Your task to perform on an android device: open a bookmark in the chrome app Image 0: 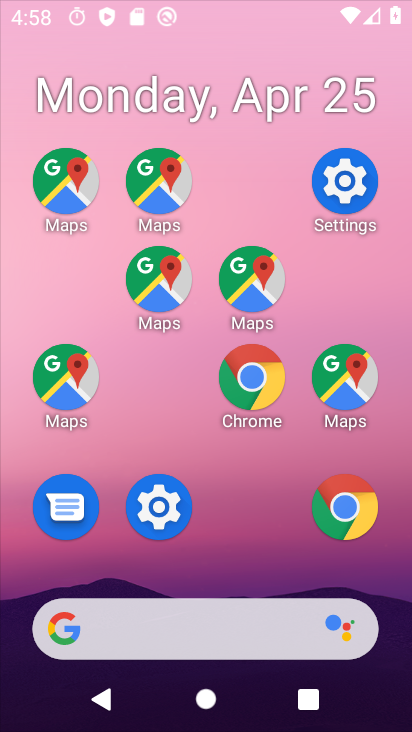
Step 0: click (39, 19)
Your task to perform on an android device: open a bookmark in the chrome app Image 1: 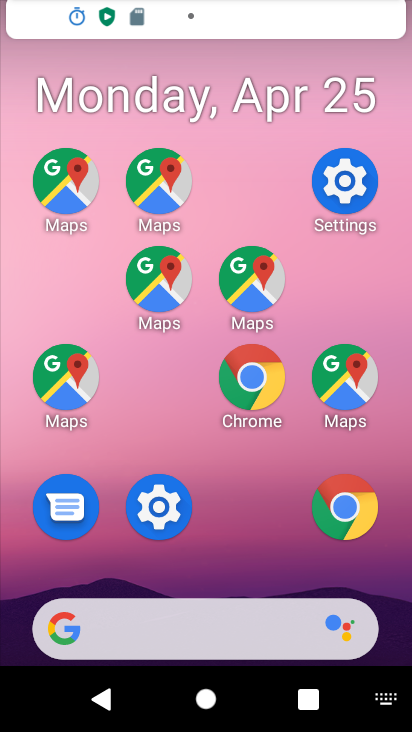
Step 1: drag from (245, 673) to (146, 149)
Your task to perform on an android device: open a bookmark in the chrome app Image 2: 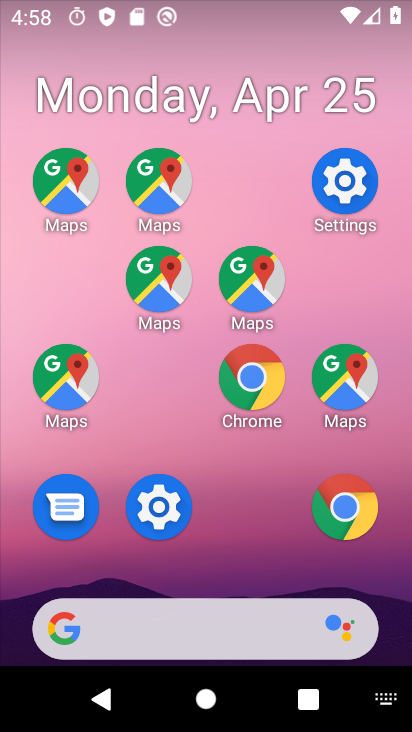
Step 2: drag from (251, 596) to (235, 180)
Your task to perform on an android device: open a bookmark in the chrome app Image 3: 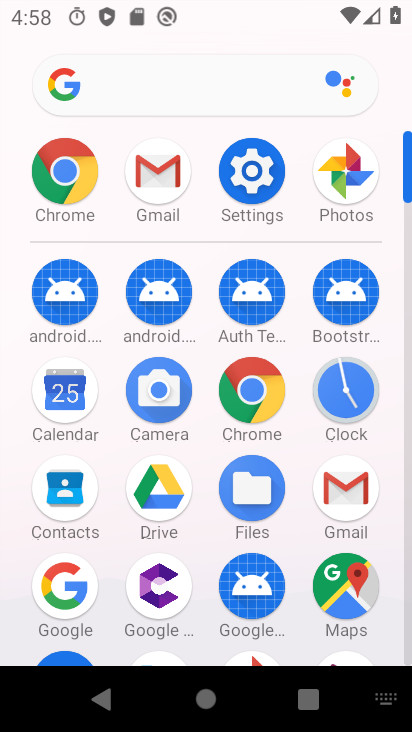
Step 3: click (56, 174)
Your task to perform on an android device: open a bookmark in the chrome app Image 4: 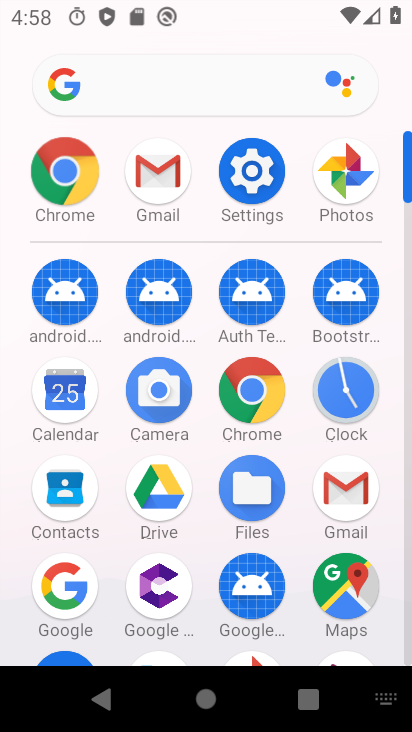
Step 4: click (56, 174)
Your task to perform on an android device: open a bookmark in the chrome app Image 5: 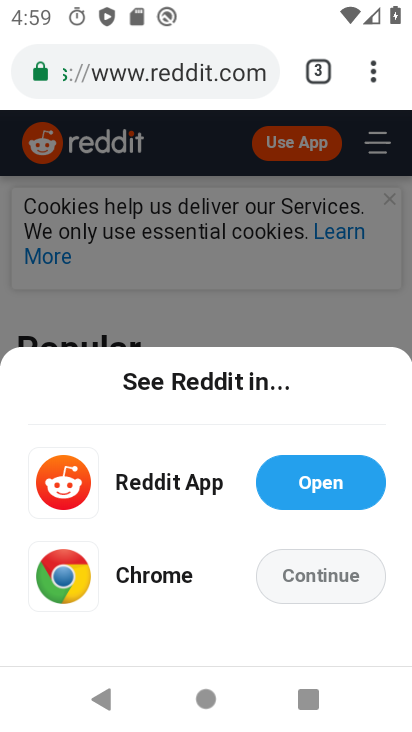
Step 5: click (376, 68)
Your task to perform on an android device: open a bookmark in the chrome app Image 6: 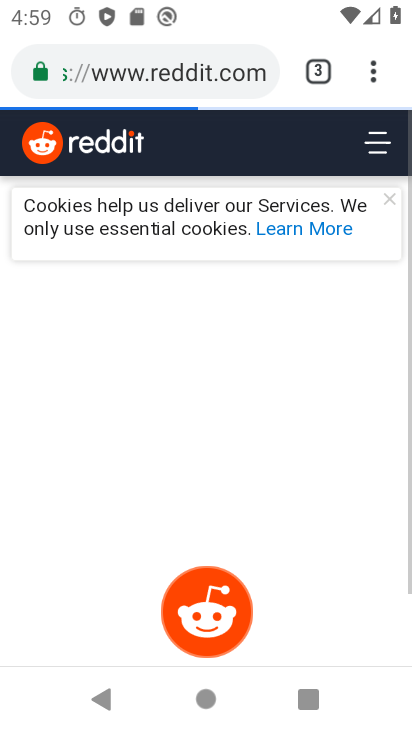
Step 6: click (376, 61)
Your task to perform on an android device: open a bookmark in the chrome app Image 7: 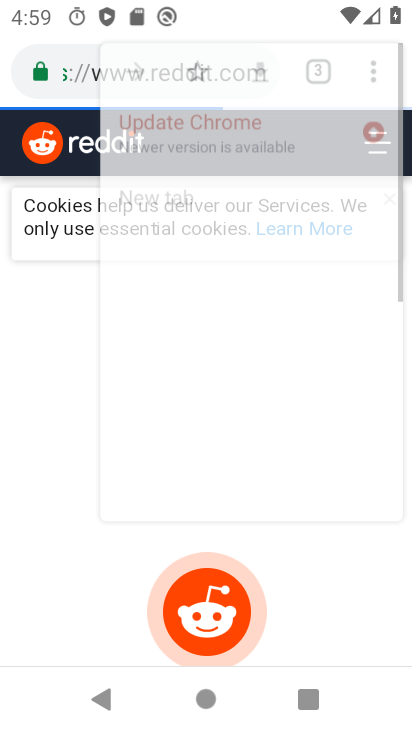
Step 7: click (368, 69)
Your task to perform on an android device: open a bookmark in the chrome app Image 8: 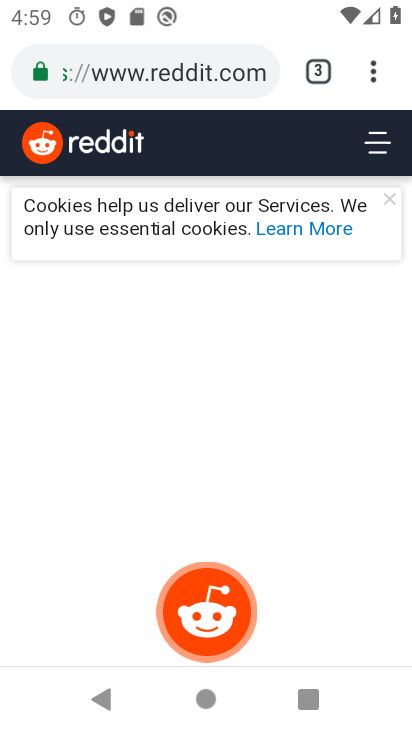
Step 8: drag from (368, 69) to (117, 518)
Your task to perform on an android device: open a bookmark in the chrome app Image 9: 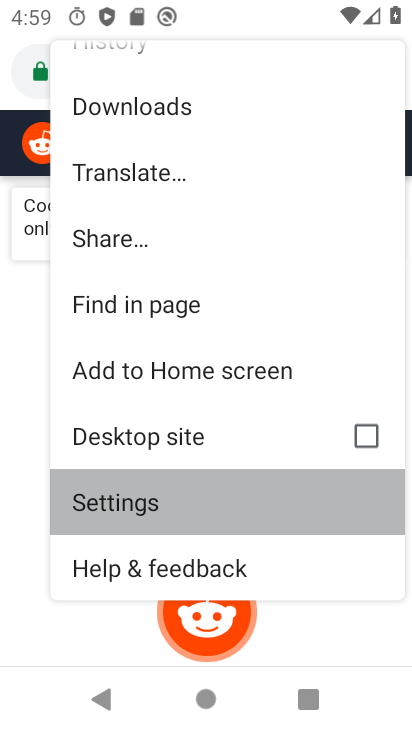
Step 9: click (122, 513)
Your task to perform on an android device: open a bookmark in the chrome app Image 10: 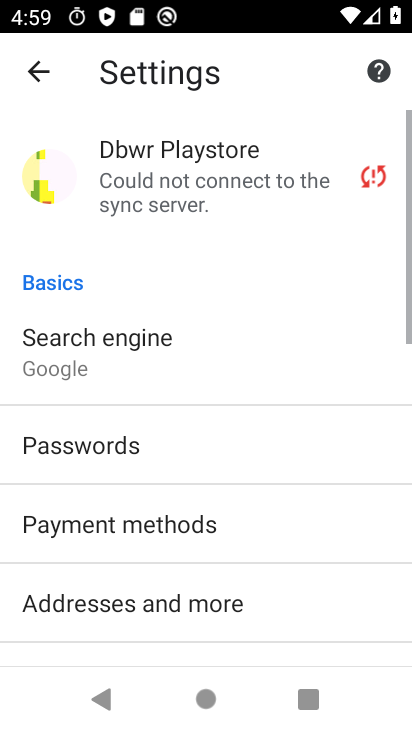
Step 10: drag from (177, 503) to (146, 164)
Your task to perform on an android device: open a bookmark in the chrome app Image 11: 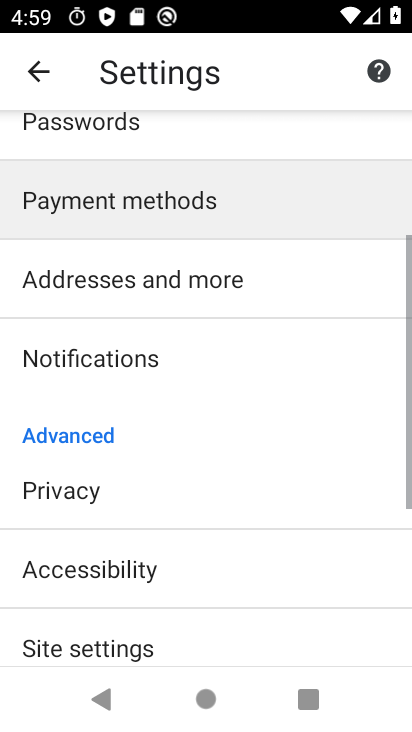
Step 11: drag from (213, 523) to (185, 77)
Your task to perform on an android device: open a bookmark in the chrome app Image 12: 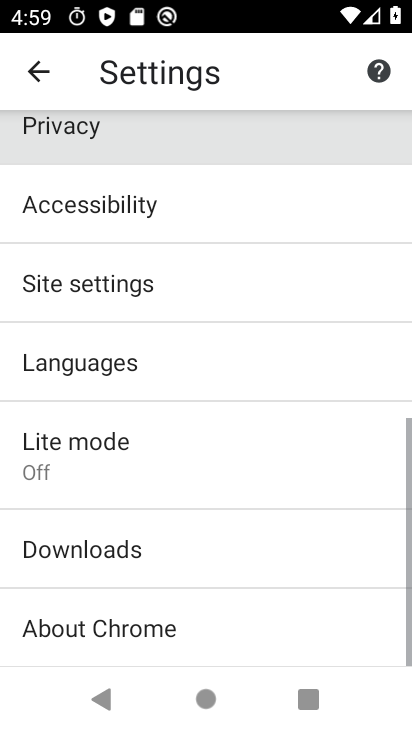
Step 12: drag from (239, 322) to (190, 122)
Your task to perform on an android device: open a bookmark in the chrome app Image 13: 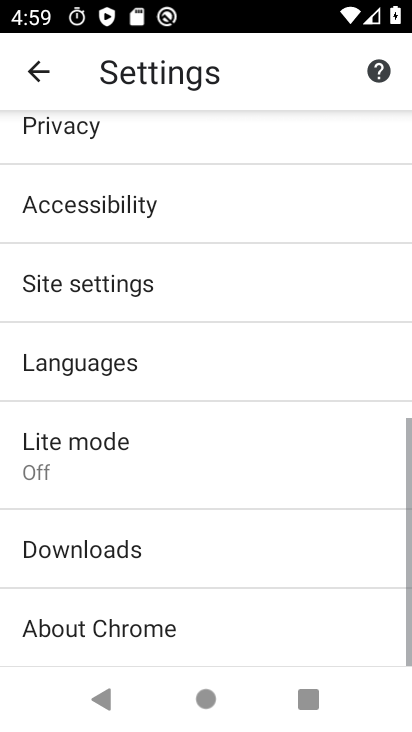
Step 13: drag from (153, 508) to (102, 178)
Your task to perform on an android device: open a bookmark in the chrome app Image 14: 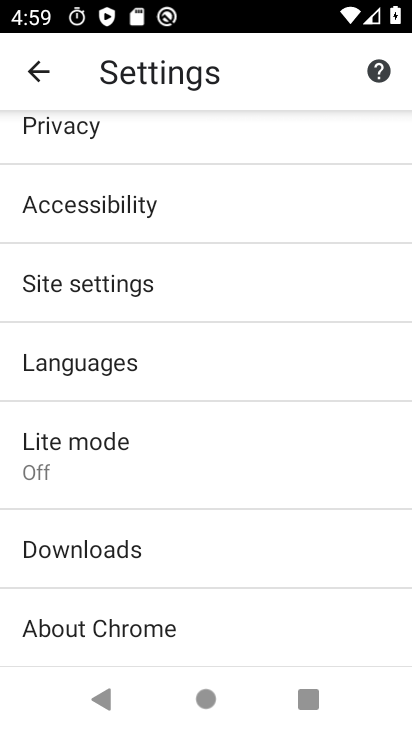
Step 14: drag from (125, 379) to (48, 589)
Your task to perform on an android device: open a bookmark in the chrome app Image 15: 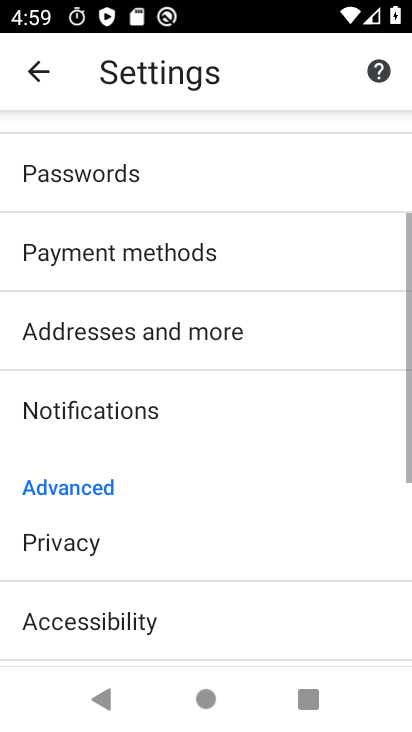
Step 15: drag from (21, 579) to (142, 526)
Your task to perform on an android device: open a bookmark in the chrome app Image 16: 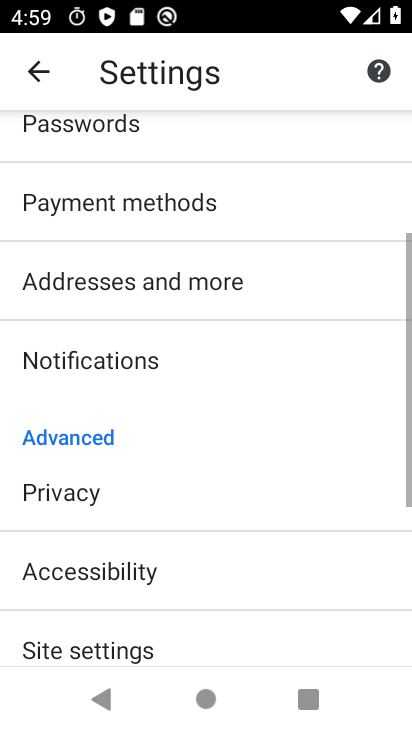
Step 16: drag from (90, 187) to (177, 527)
Your task to perform on an android device: open a bookmark in the chrome app Image 17: 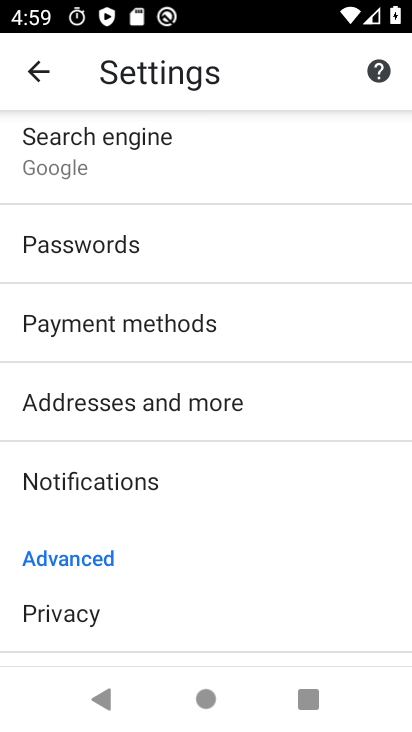
Step 17: drag from (116, 309) to (180, 568)
Your task to perform on an android device: open a bookmark in the chrome app Image 18: 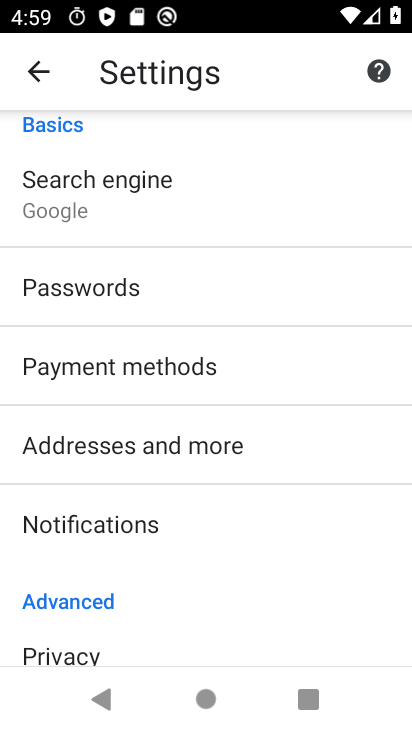
Step 18: click (30, 64)
Your task to perform on an android device: open a bookmark in the chrome app Image 19: 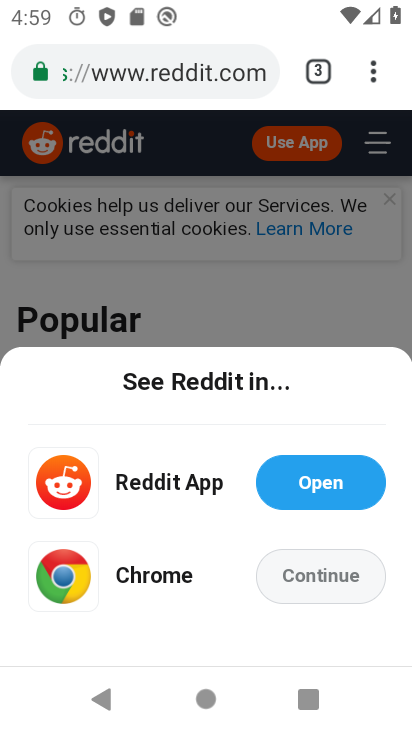
Step 19: drag from (372, 77) to (151, 373)
Your task to perform on an android device: open a bookmark in the chrome app Image 20: 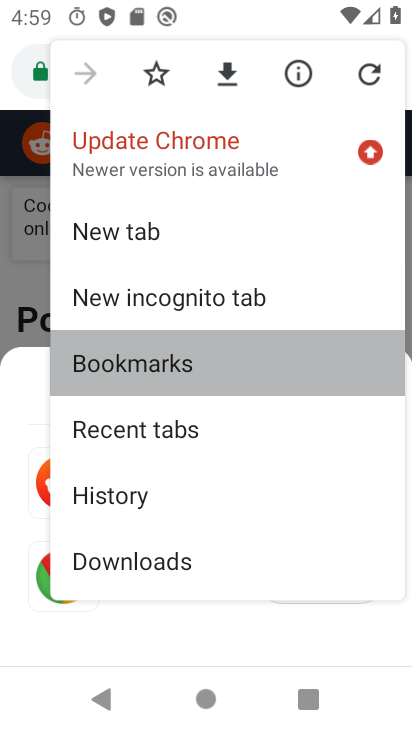
Step 20: click (162, 364)
Your task to perform on an android device: open a bookmark in the chrome app Image 21: 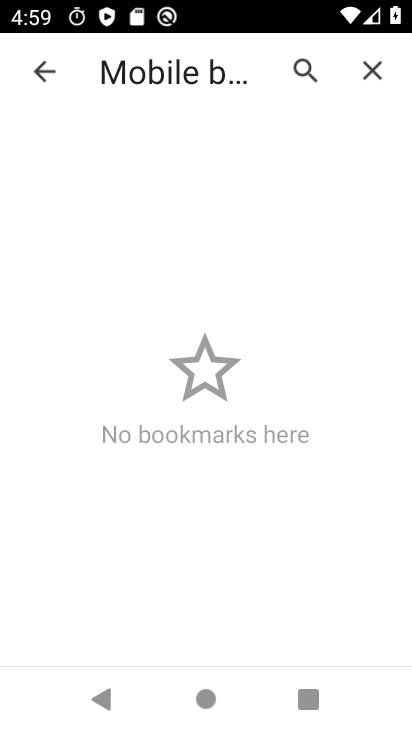
Step 21: task complete